Your task to perform on an android device: Search for Italian restaurants on Maps Image 0: 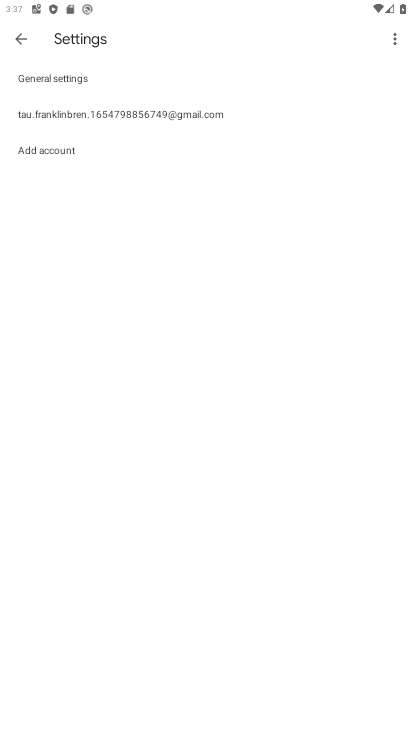
Step 0: press home button
Your task to perform on an android device: Search for Italian restaurants on Maps Image 1: 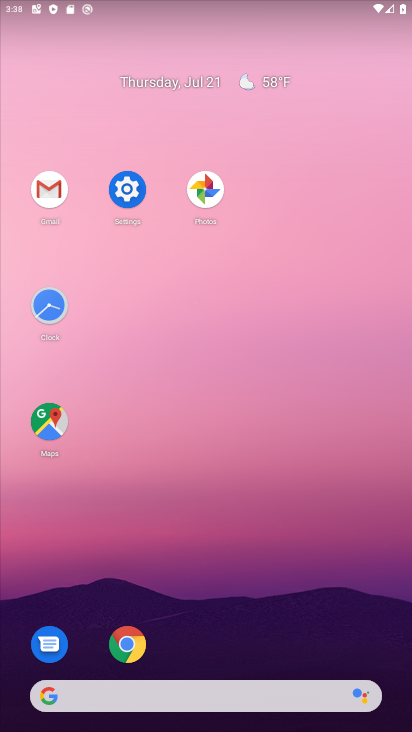
Step 1: click (46, 414)
Your task to perform on an android device: Search for Italian restaurants on Maps Image 2: 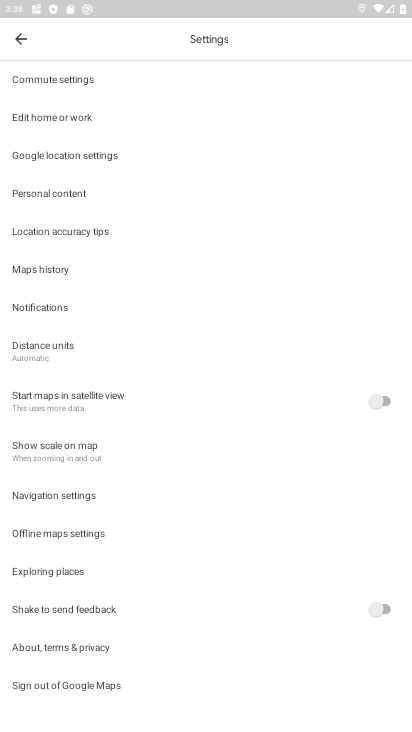
Step 2: click (20, 44)
Your task to perform on an android device: Search for Italian restaurants on Maps Image 3: 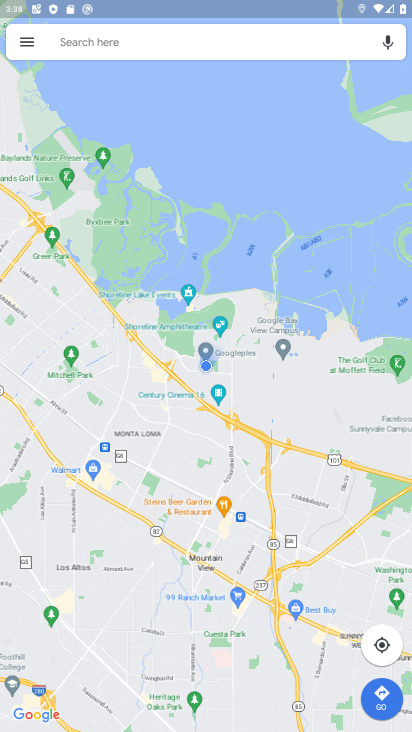
Step 3: click (93, 46)
Your task to perform on an android device: Search for Italian restaurants on Maps Image 4: 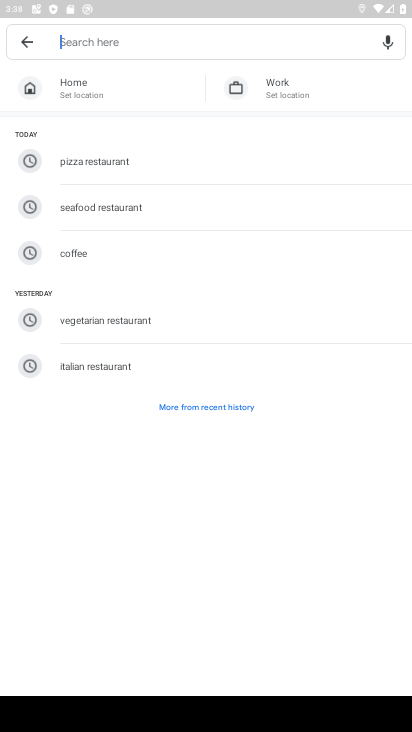
Step 4: click (140, 370)
Your task to perform on an android device: Search for Italian restaurants on Maps Image 5: 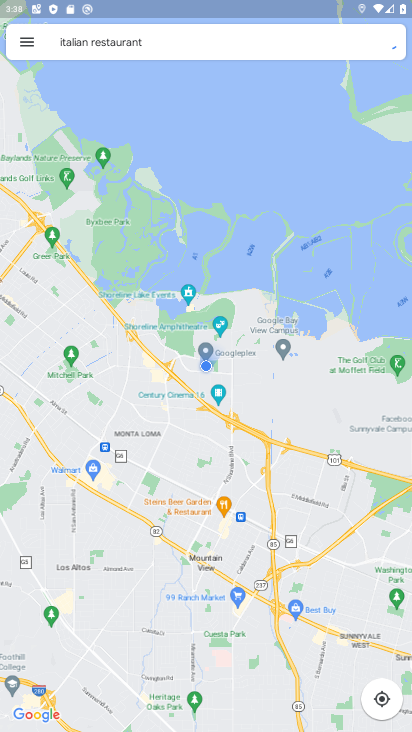
Step 5: task complete